Your task to perform on an android device: turn off airplane mode Image 0: 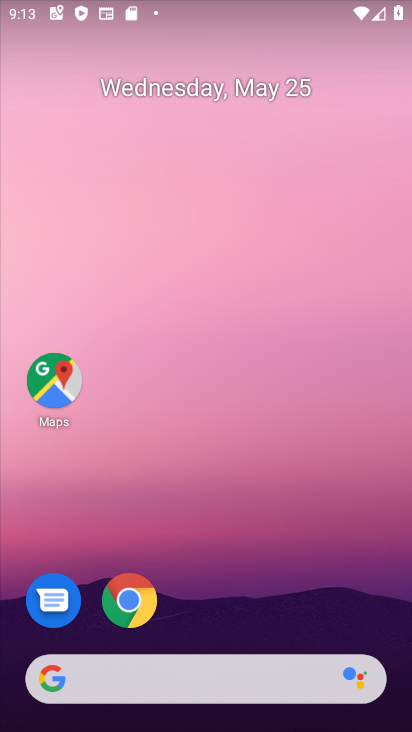
Step 0: drag from (196, 624) to (189, 44)
Your task to perform on an android device: turn off airplane mode Image 1: 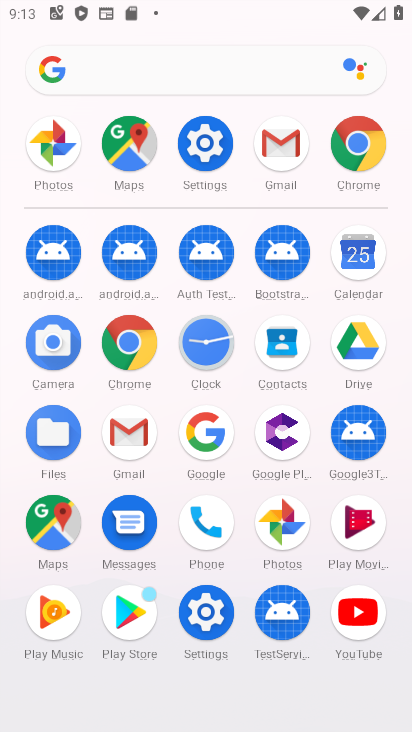
Step 1: drag from (5, 538) to (20, 198)
Your task to perform on an android device: turn off airplane mode Image 2: 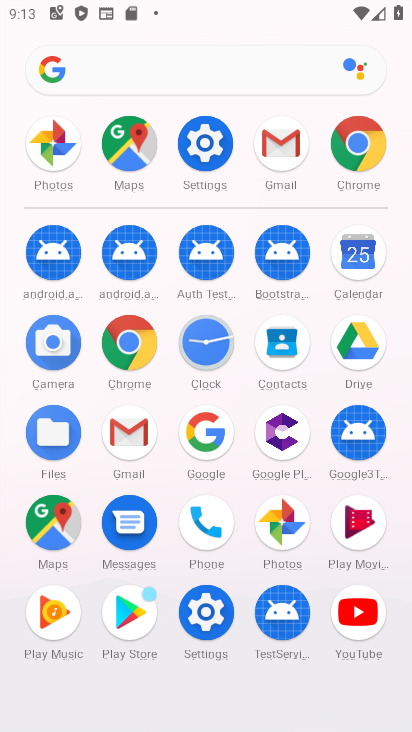
Step 2: click (202, 608)
Your task to perform on an android device: turn off airplane mode Image 3: 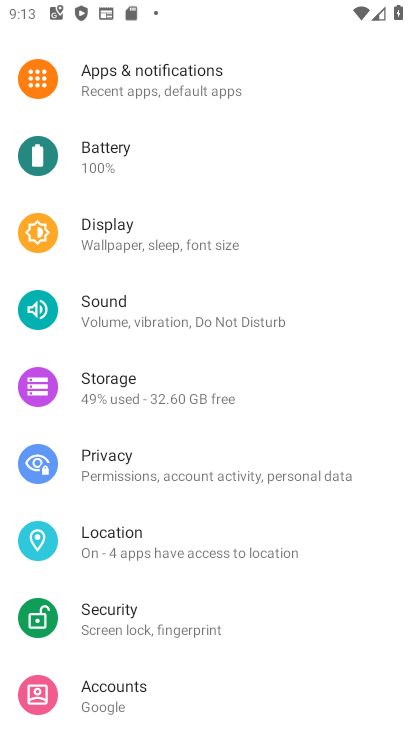
Step 3: drag from (265, 107) to (256, 635)
Your task to perform on an android device: turn off airplane mode Image 4: 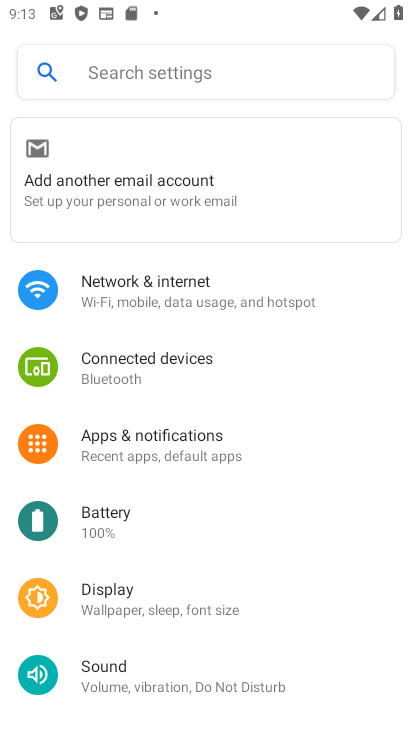
Step 4: click (226, 279)
Your task to perform on an android device: turn off airplane mode Image 5: 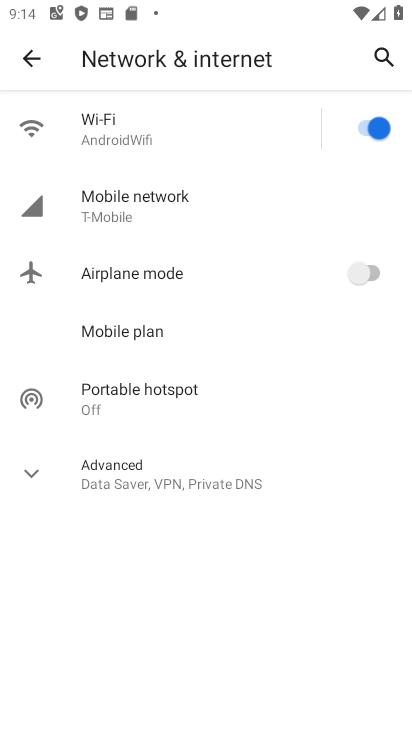
Step 5: task complete